Your task to perform on an android device: Do I have any events today? Image 0: 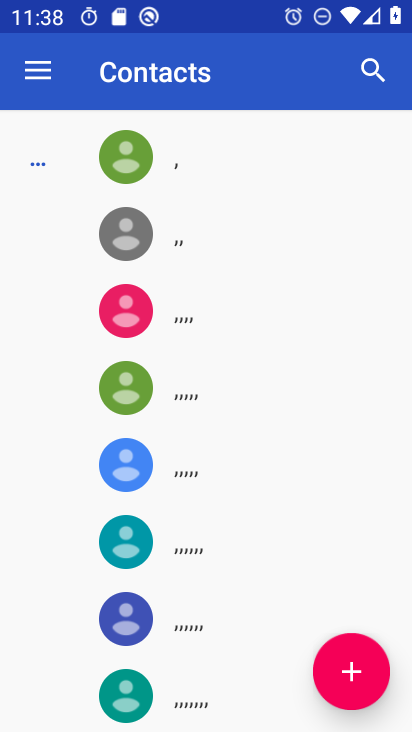
Step 0: press home button
Your task to perform on an android device: Do I have any events today? Image 1: 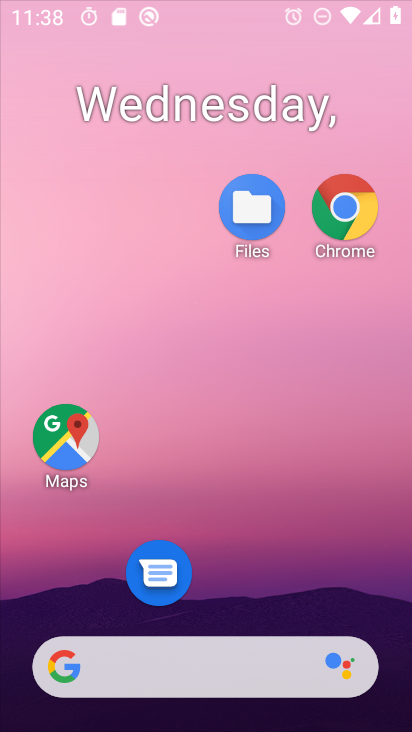
Step 1: drag from (239, 681) to (221, 128)
Your task to perform on an android device: Do I have any events today? Image 2: 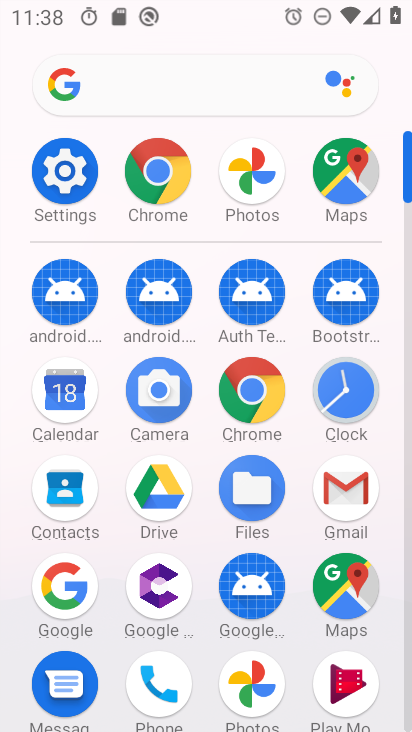
Step 2: drag from (220, 495) to (269, 274)
Your task to perform on an android device: Do I have any events today? Image 3: 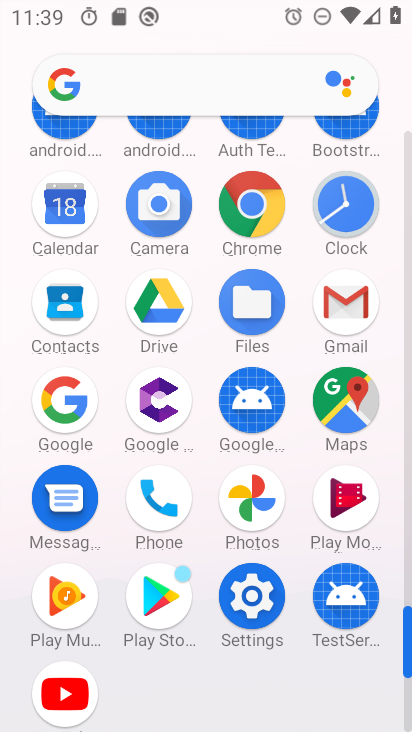
Step 3: click (69, 239)
Your task to perform on an android device: Do I have any events today? Image 4: 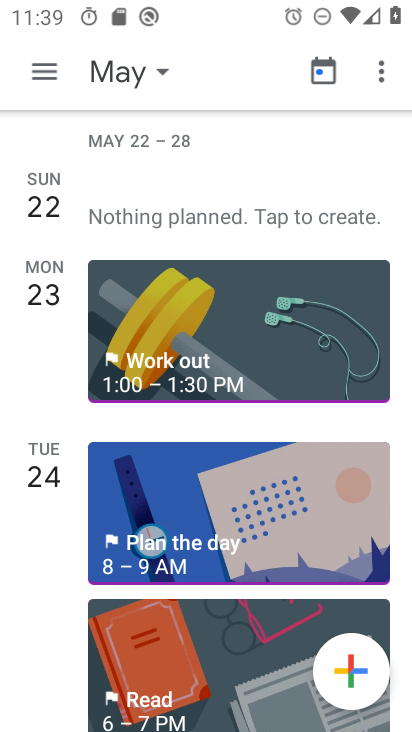
Step 4: click (160, 79)
Your task to perform on an android device: Do I have any events today? Image 5: 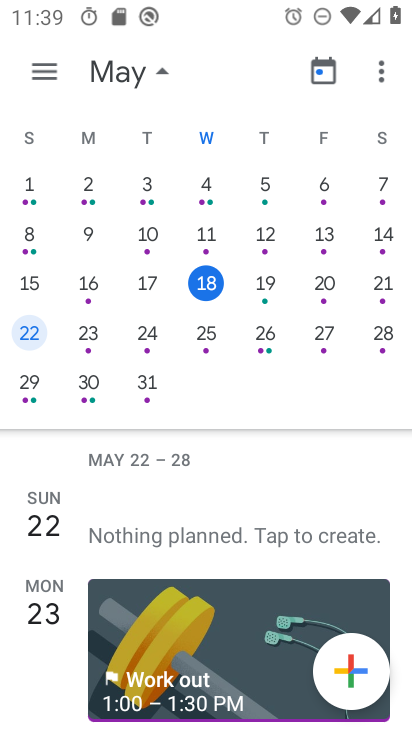
Step 5: click (277, 309)
Your task to perform on an android device: Do I have any events today? Image 6: 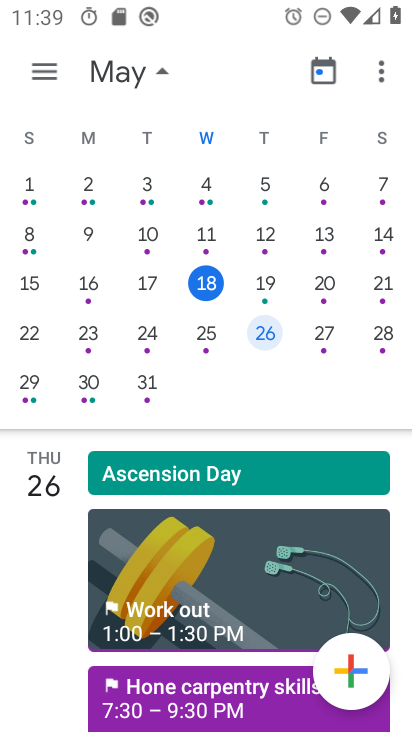
Step 6: click (266, 290)
Your task to perform on an android device: Do I have any events today? Image 7: 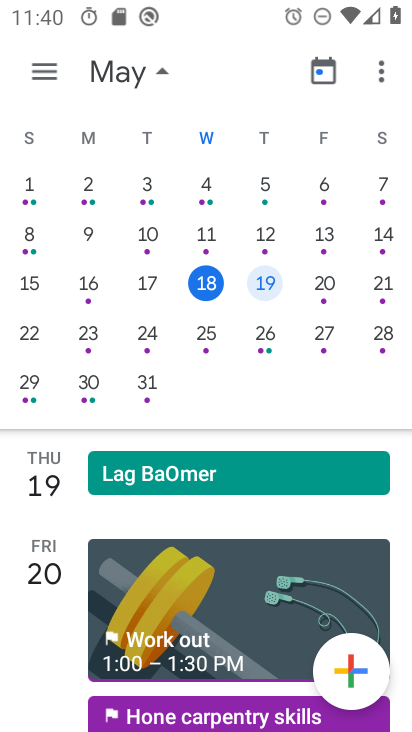
Step 7: task complete